Your task to perform on an android device: delete a single message in the gmail app Image 0: 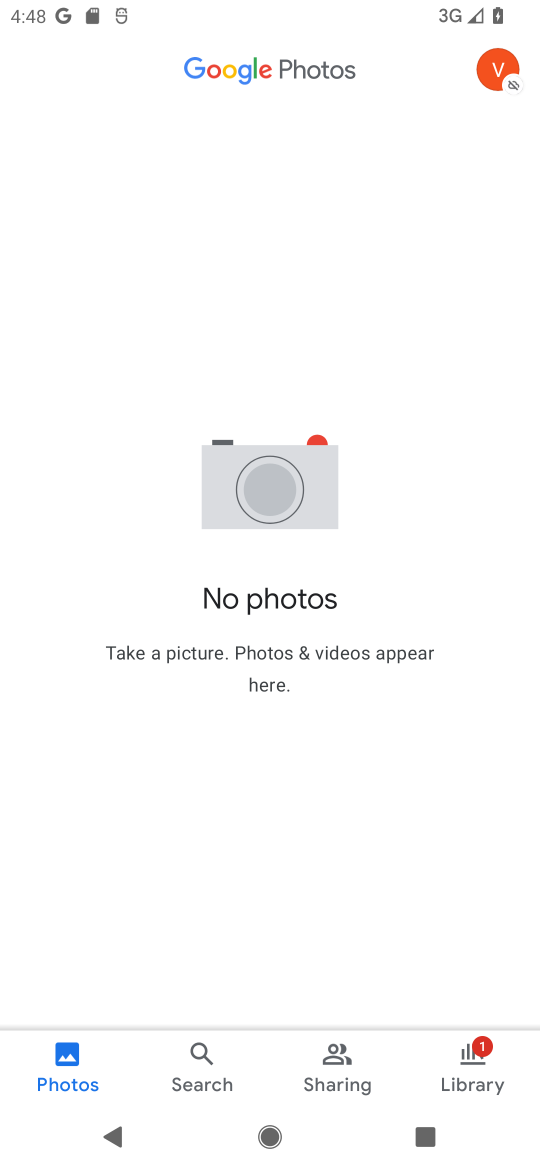
Step 0: press back button
Your task to perform on an android device: delete a single message in the gmail app Image 1: 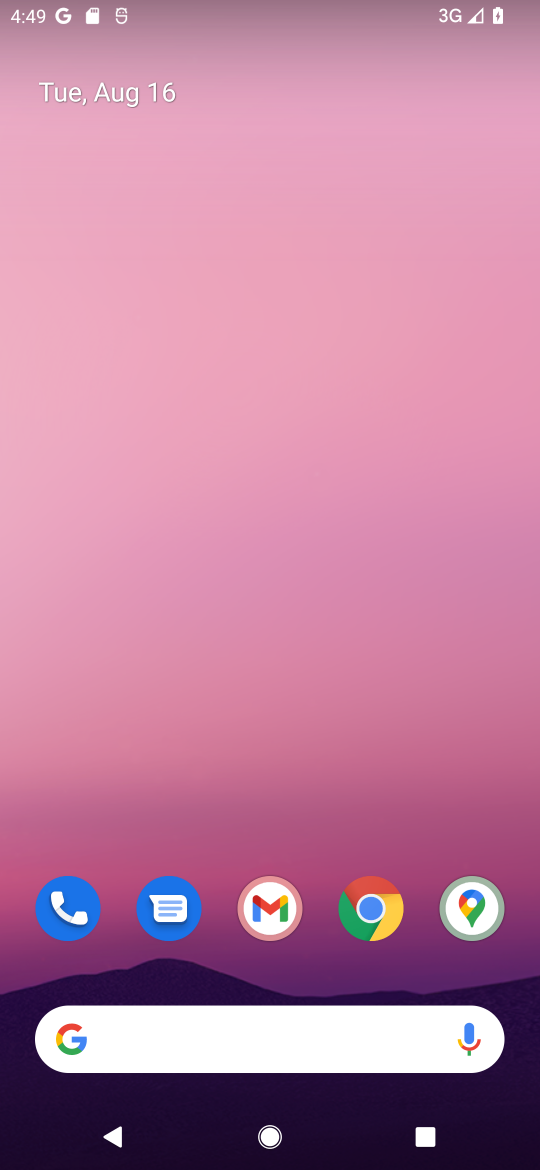
Step 1: click (286, 902)
Your task to perform on an android device: delete a single message in the gmail app Image 2: 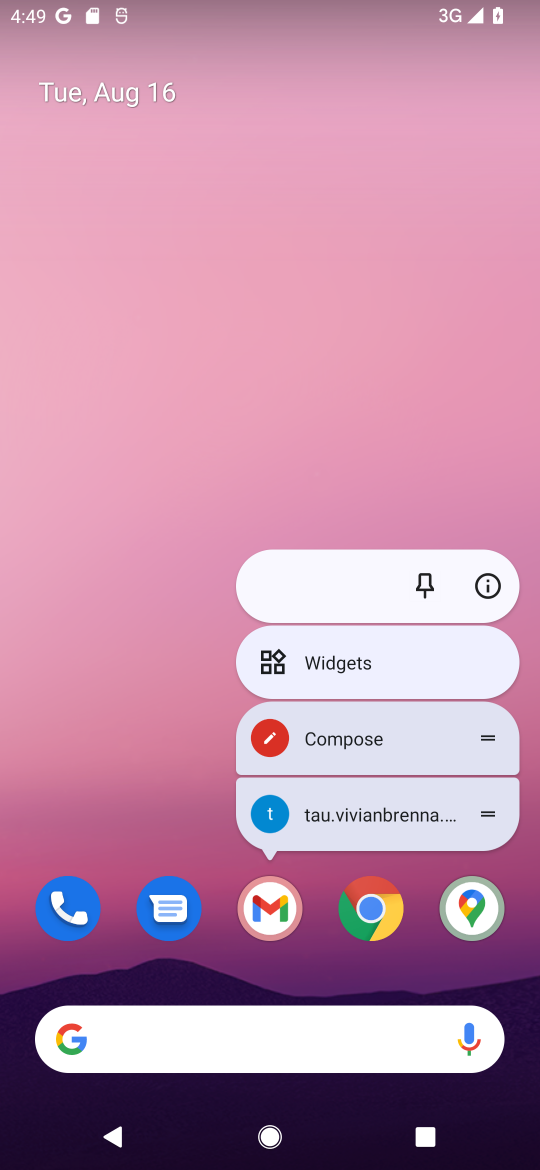
Step 2: click (286, 902)
Your task to perform on an android device: delete a single message in the gmail app Image 3: 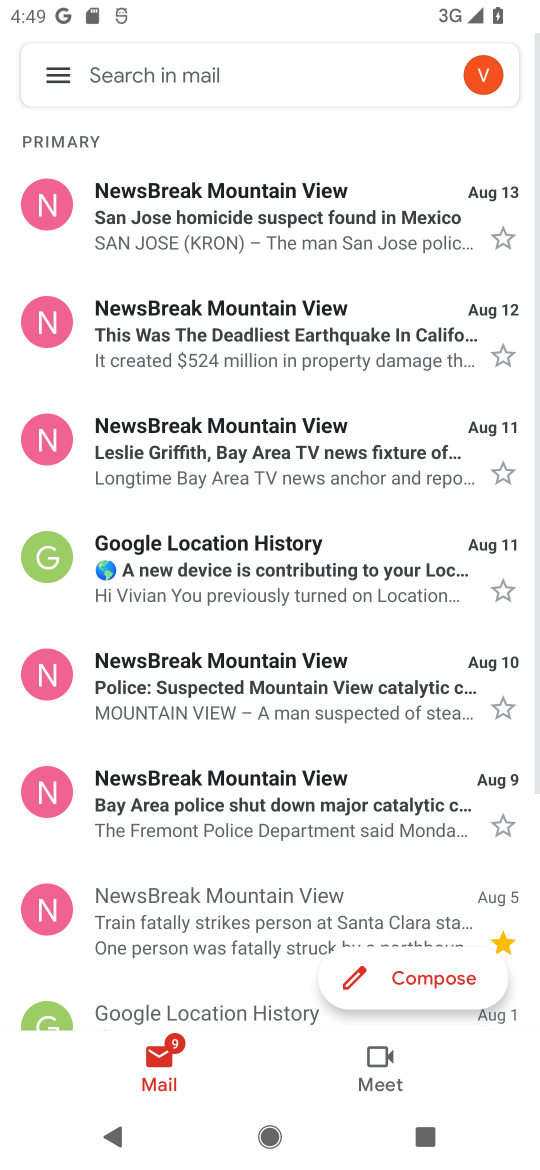
Step 3: click (282, 224)
Your task to perform on an android device: delete a single message in the gmail app Image 4: 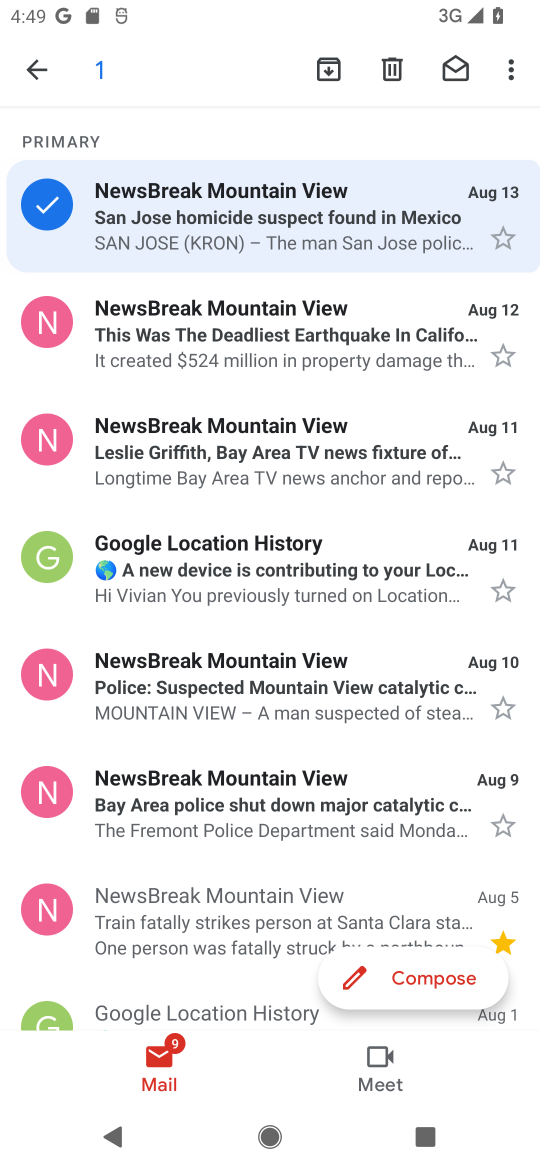
Step 4: click (402, 66)
Your task to perform on an android device: delete a single message in the gmail app Image 5: 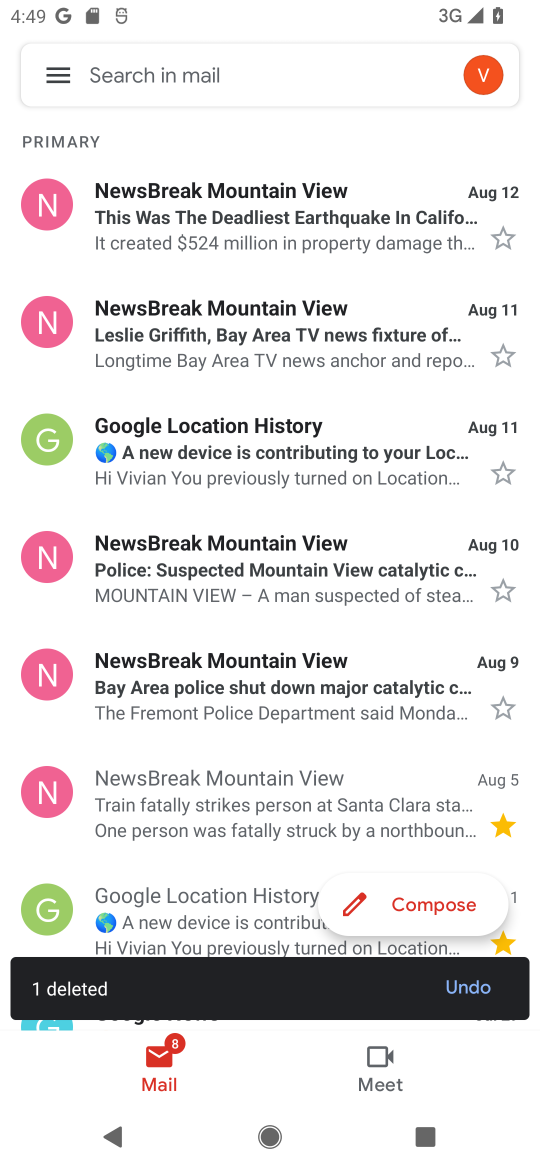
Step 5: task complete